Your task to perform on an android device: open a bookmark in the chrome app Image 0: 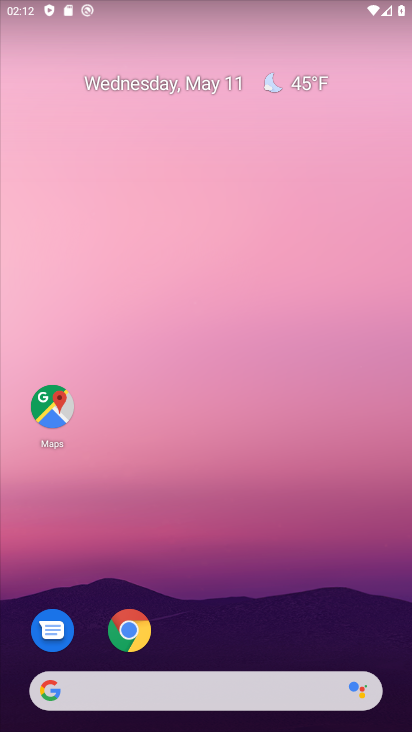
Step 0: click (129, 629)
Your task to perform on an android device: open a bookmark in the chrome app Image 1: 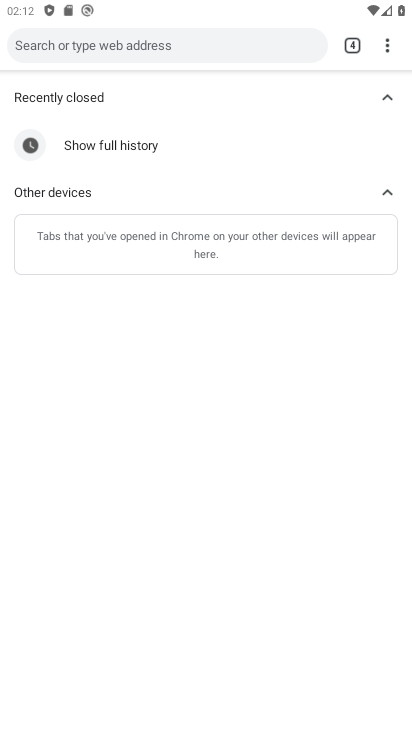
Step 1: click (388, 49)
Your task to perform on an android device: open a bookmark in the chrome app Image 2: 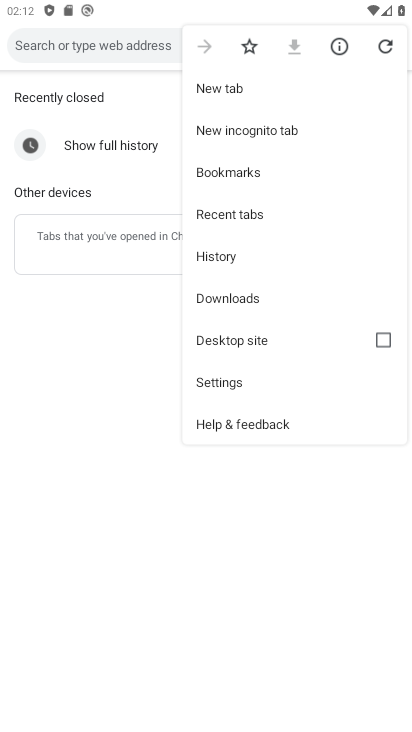
Step 2: click (237, 172)
Your task to perform on an android device: open a bookmark in the chrome app Image 3: 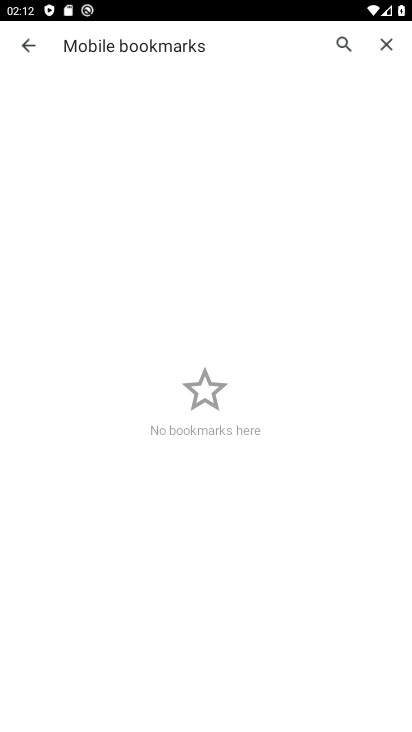
Step 3: task complete